Your task to perform on an android device: open app "Pinterest" (install if not already installed) Image 0: 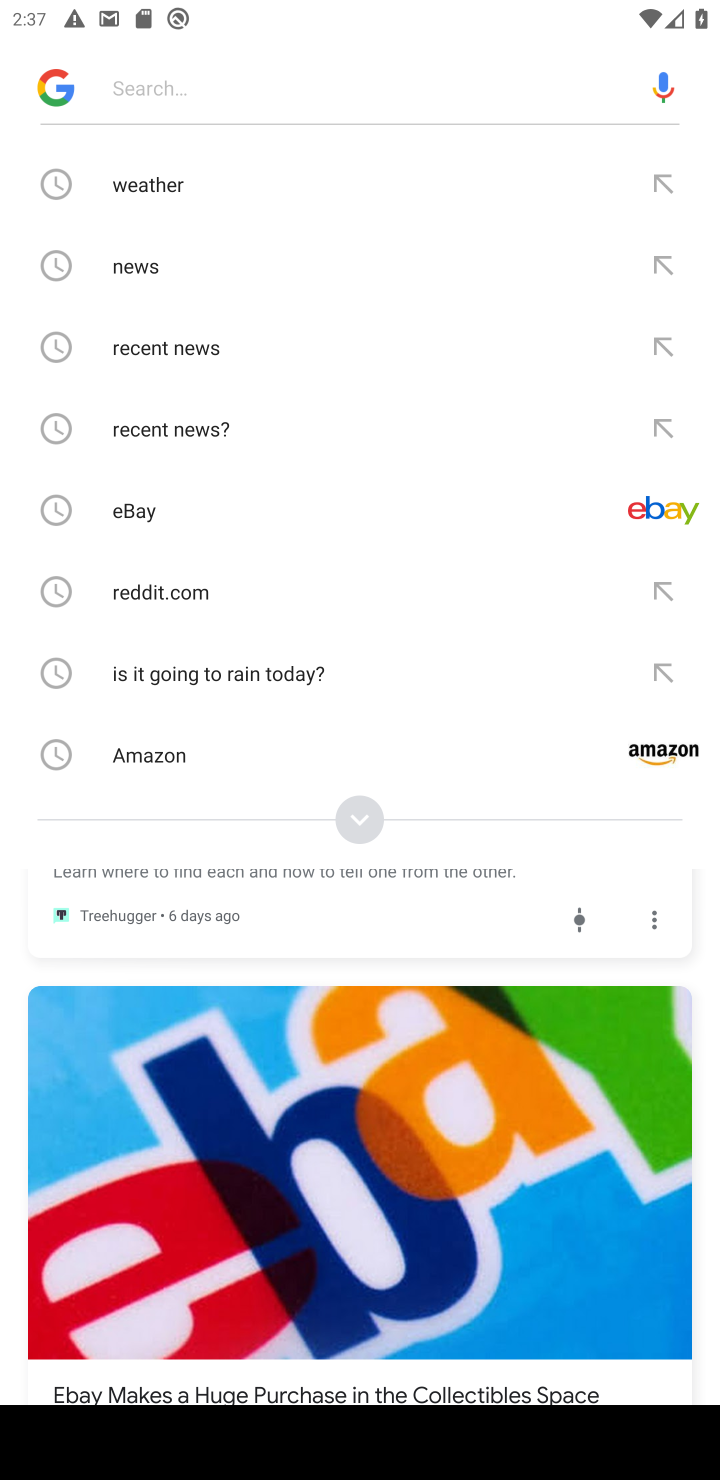
Step 0: press home button
Your task to perform on an android device: open app "Pinterest" (install if not already installed) Image 1: 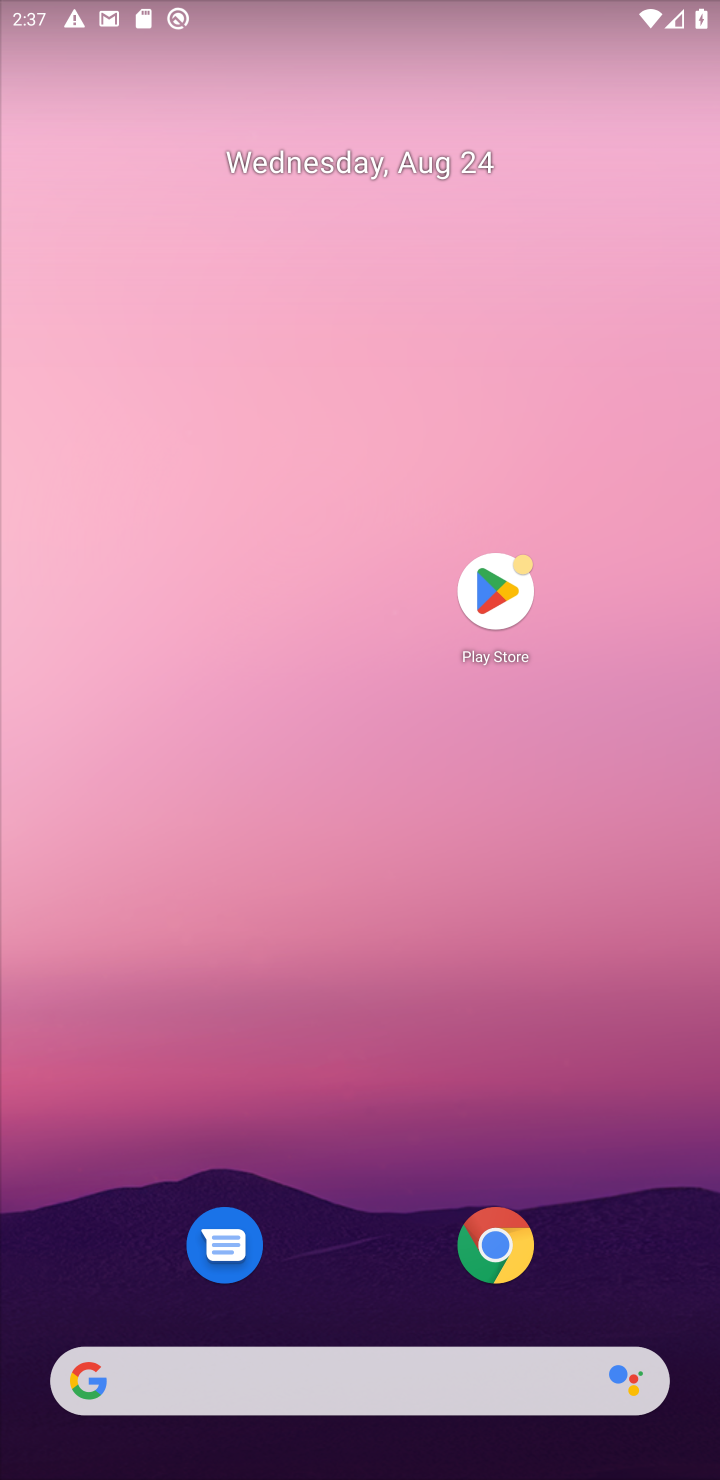
Step 1: click (503, 577)
Your task to perform on an android device: open app "Pinterest" (install if not already installed) Image 2: 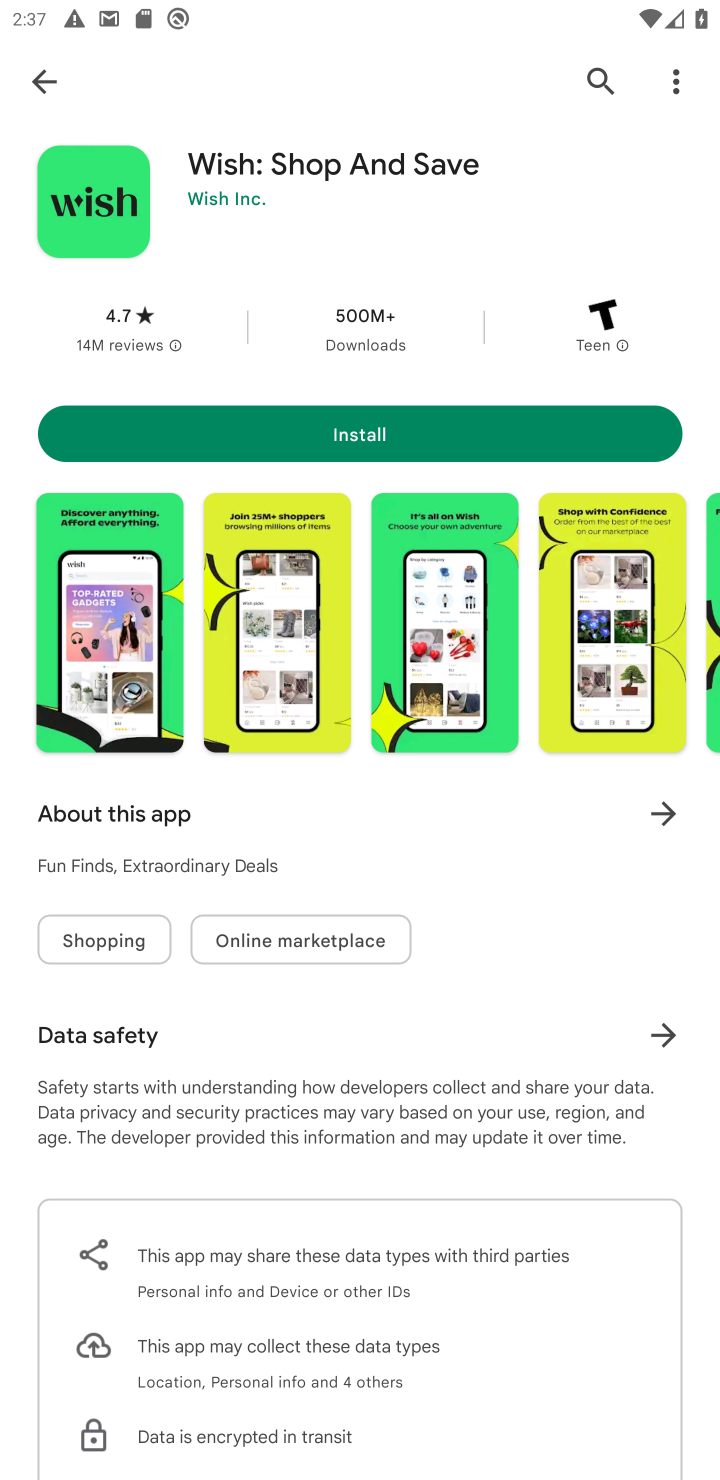
Step 2: click (593, 85)
Your task to perform on an android device: open app "Pinterest" (install if not already installed) Image 3: 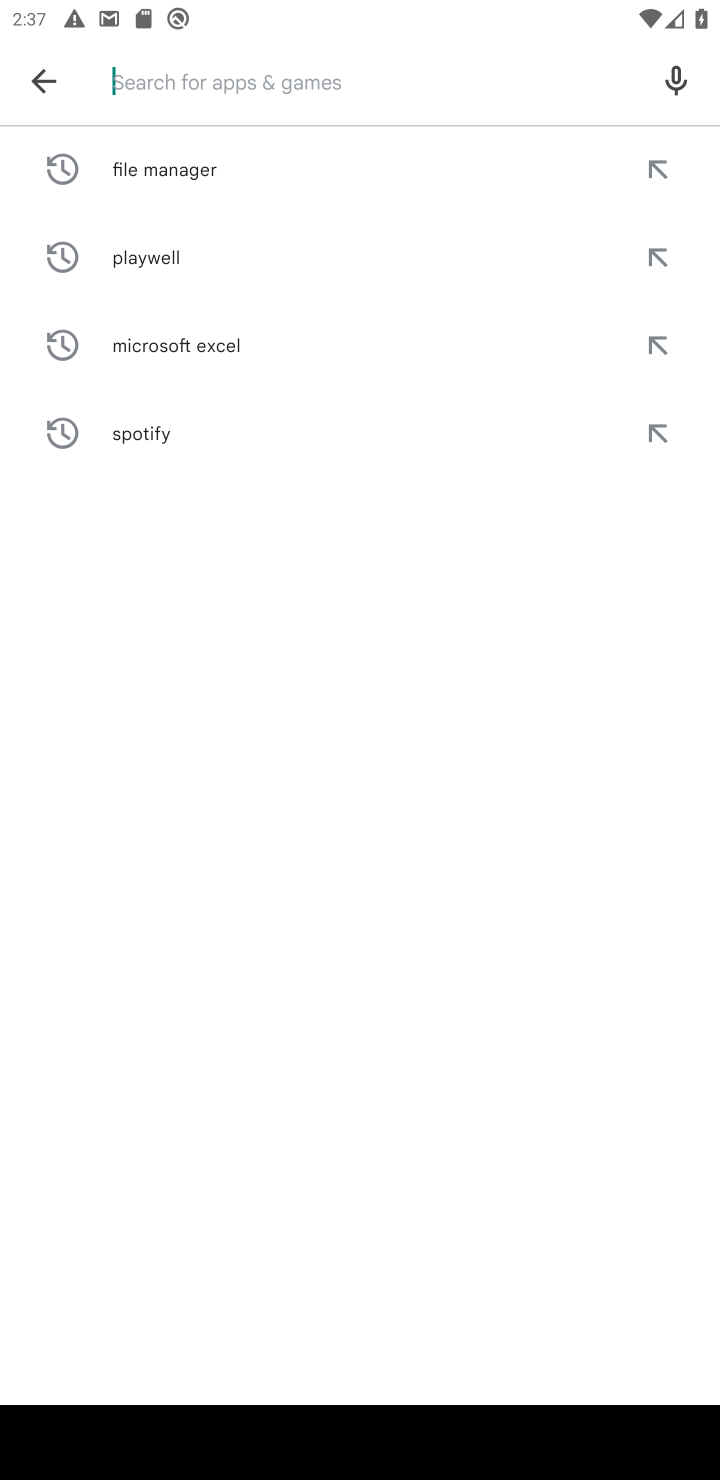
Step 3: type "Pinterest"
Your task to perform on an android device: open app "Pinterest" (install if not already installed) Image 4: 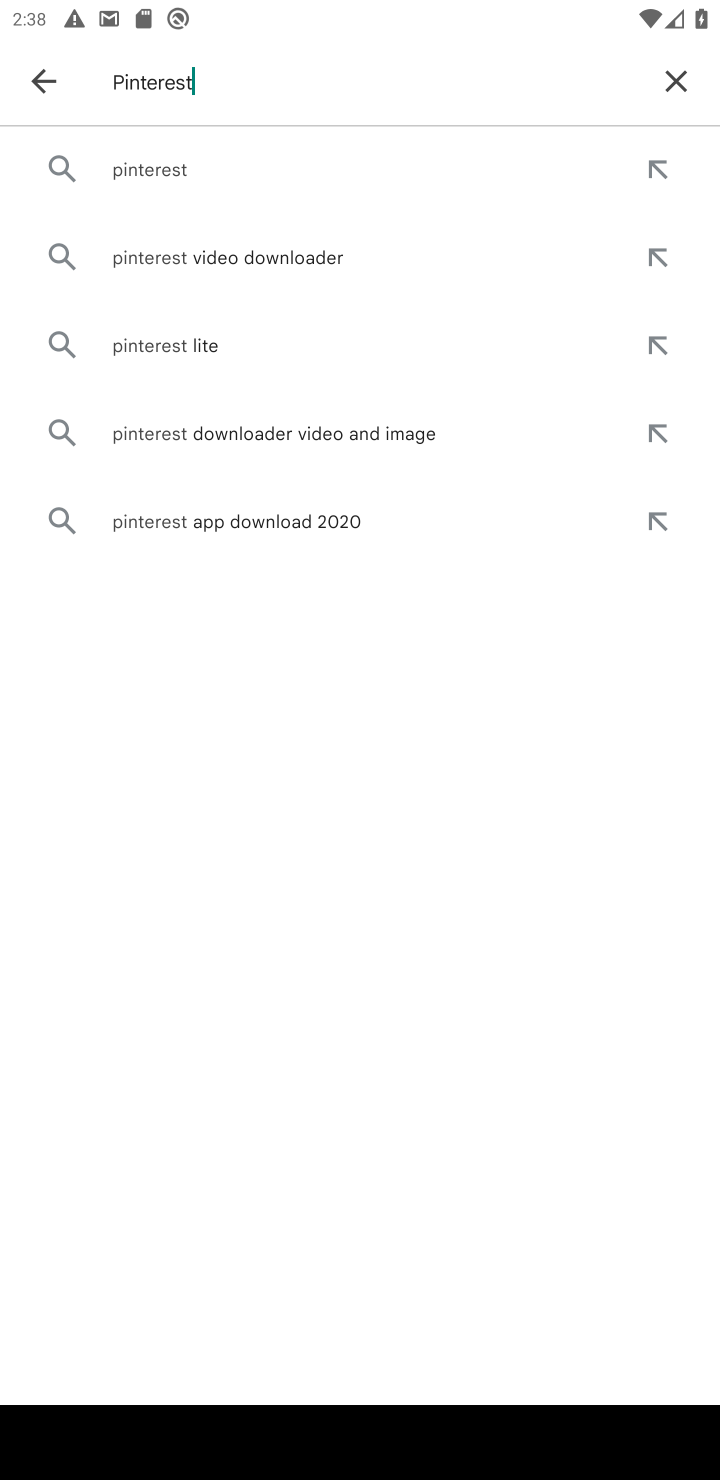
Step 4: click (152, 164)
Your task to perform on an android device: open app "Pinterest" (install if not already installed) Image 5: 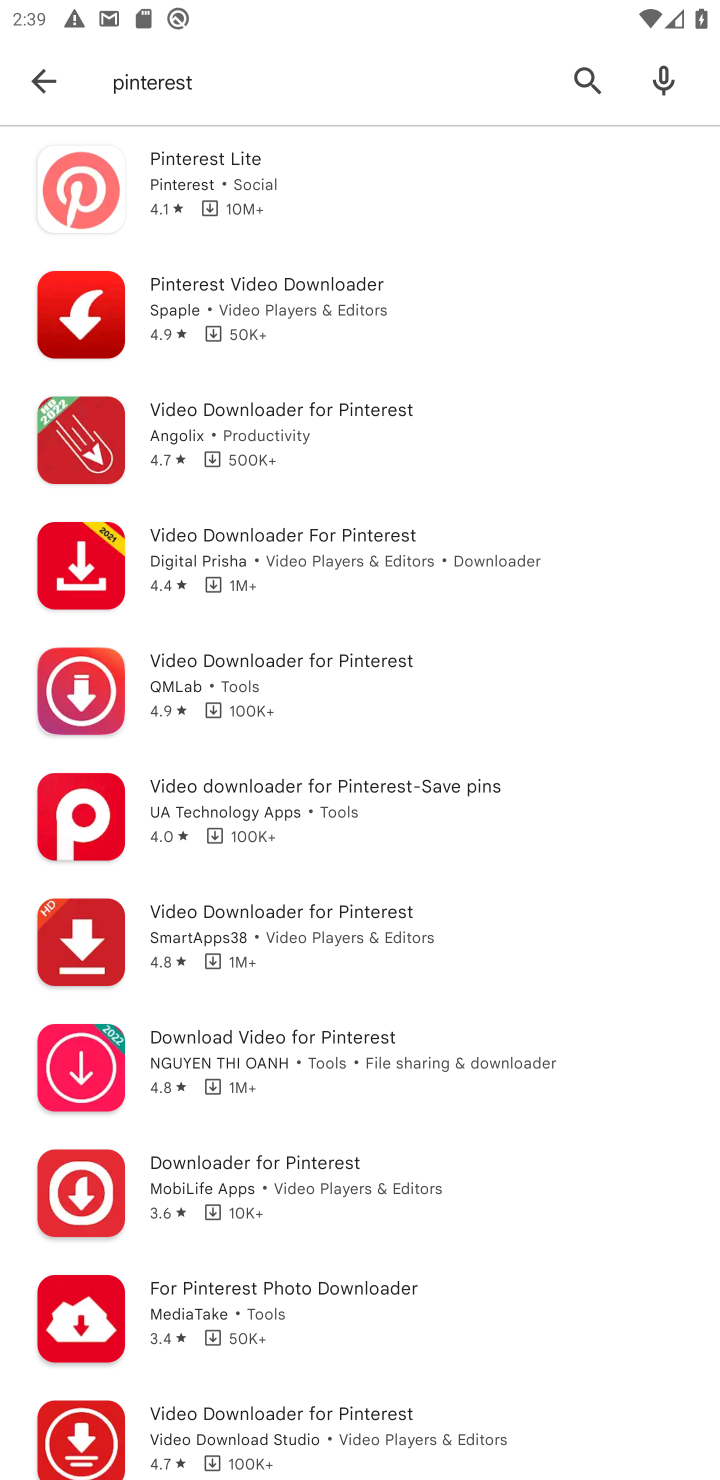
Step 5: task complete